Your task to perform on an android device: change the clock style Image 0: 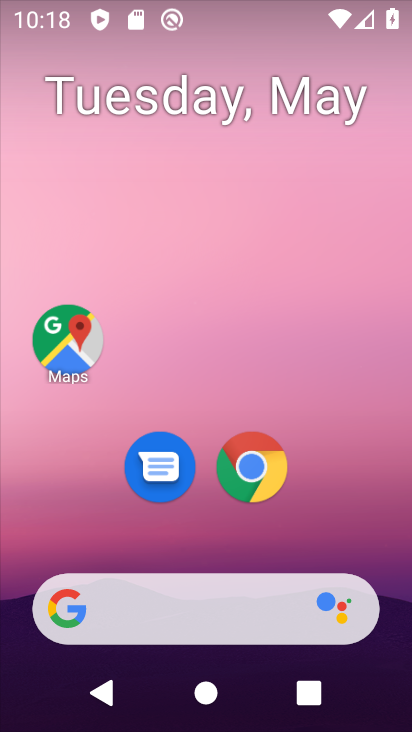
Step 0: drag from (234, 459) to (8, 96)
Your task to perform on an android device: change the clock style Image 1: 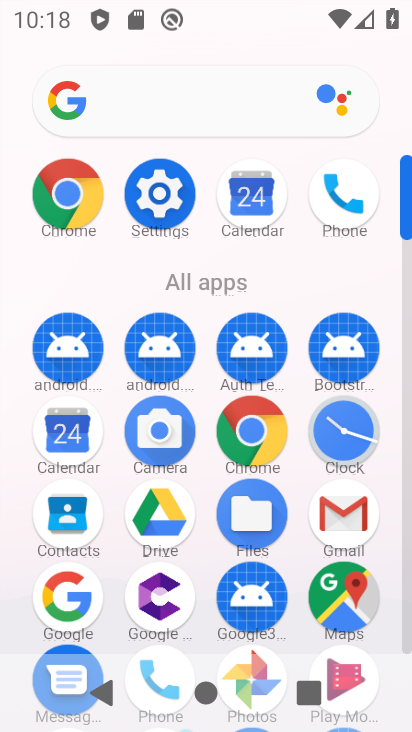
Step 1: click (330, 433)
Your task to perform on an android device: change the clock style Image 2: 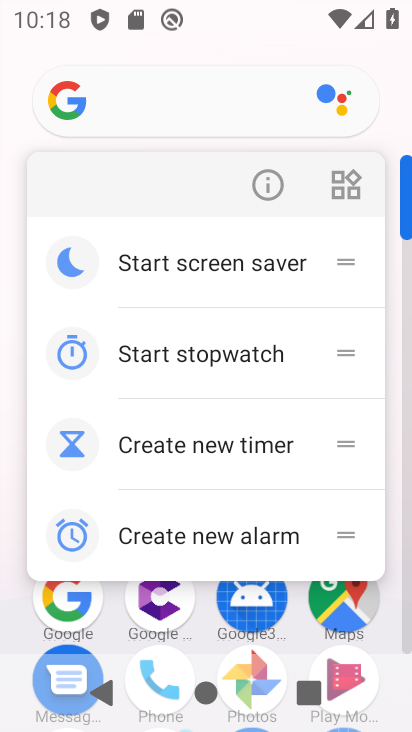
Step 2: click (259, 178)
Your task to perform on an android device: change the clock style Image 3: 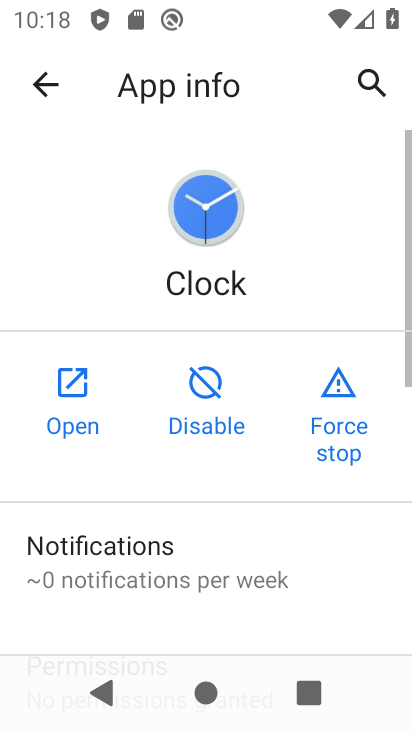
Step 3: click (77, 403)
Your task to perform on an android device: change the clock style Image 4: 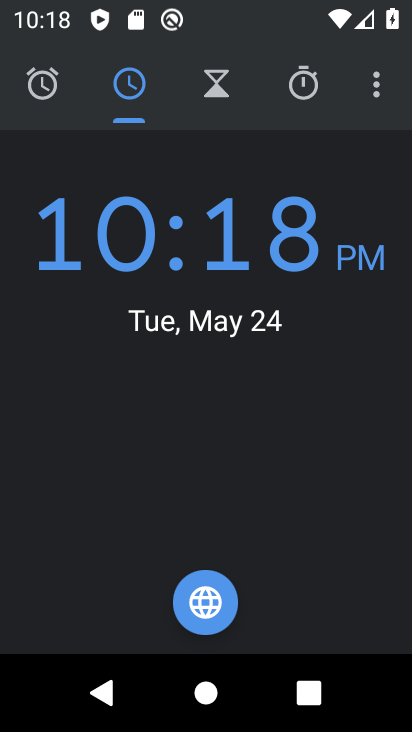
Step 4: click (368, 83)
Your task to perform on an android device: change the clock style Image 5: 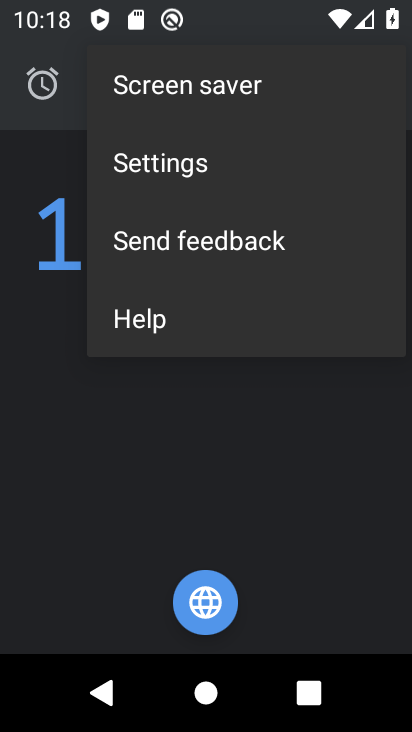
Step 5: click (227, 166)
Your task to perform on an android device: change the clock style Image 6: 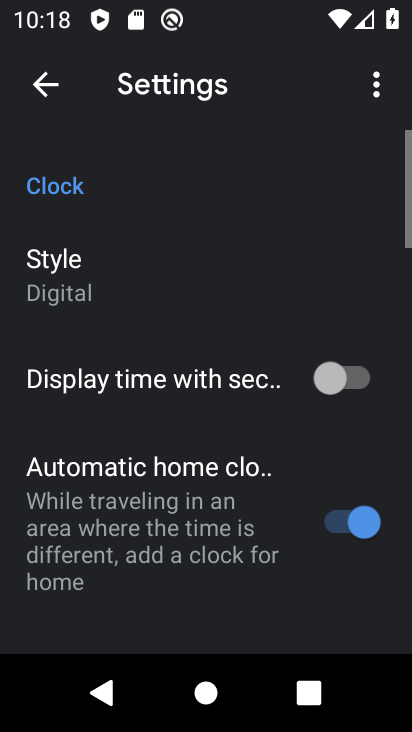
Step 6: click (108, 287)
Your task to perform on an android device: change the clock style Image 7: 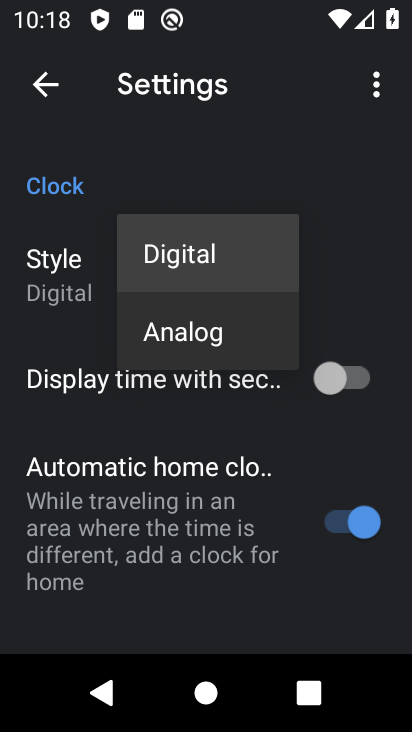
Step 7: click (159, 345)
Your task to perform on an android device: change the clock style Image 8: 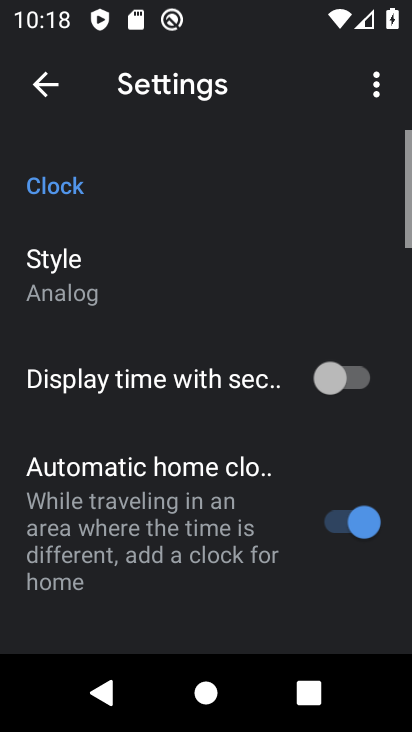
Step 8: task complete